Your task to perform on an android device: turn pop-ups off in chrome Image 0: 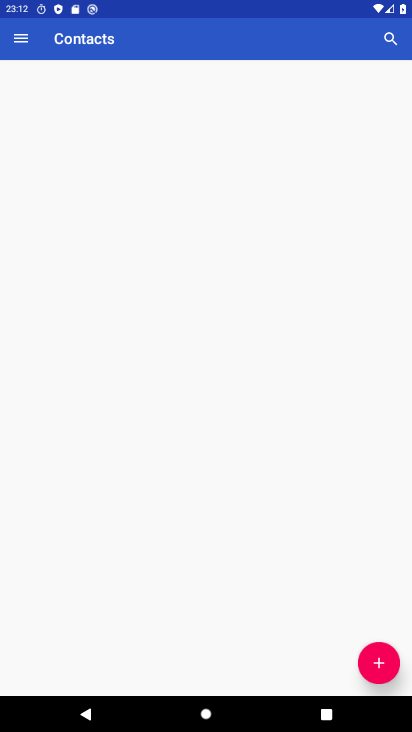
Step 0: drag from (199, 381) to (251, 171)
Your task to perform on an android device: turn pop-ups off in chrome Image 1: 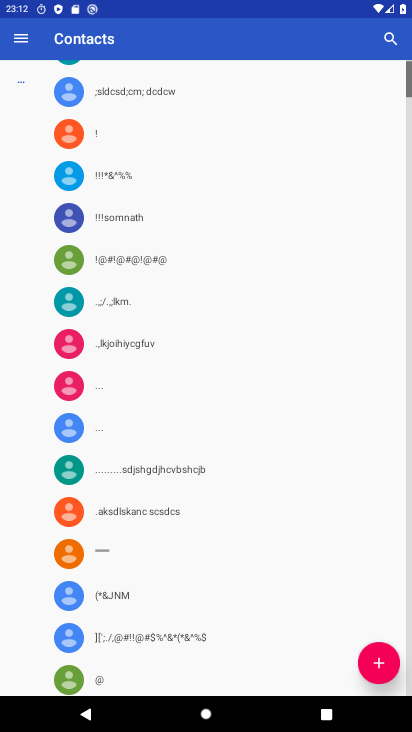
Step 1: press home button
Your task to perform on an android device: turn pop-ups off in chrome Image 2: 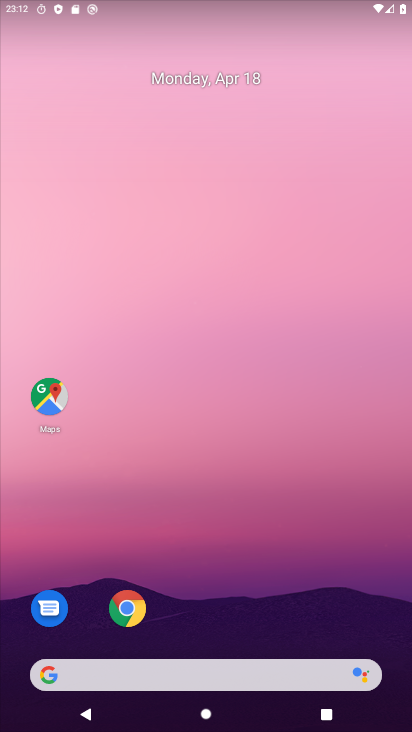
Step 2: click (126, 606)
Your task to perform on an android device: turn pop-ups off in chrome Image 3: 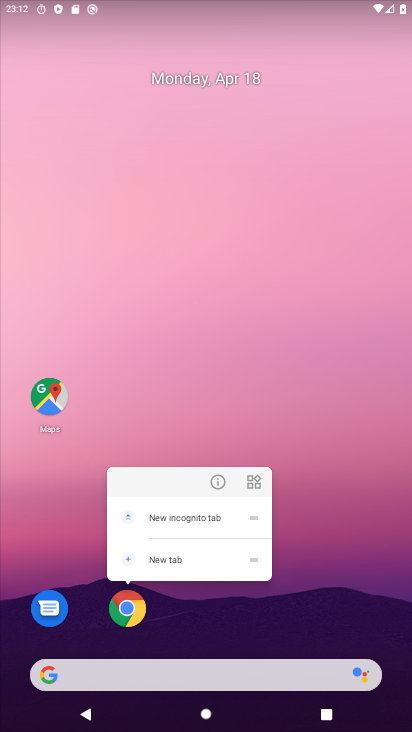
Step 3: click (256, 611)
Your task to perform on an android device: turn pop-ups off in chrome Image 4: 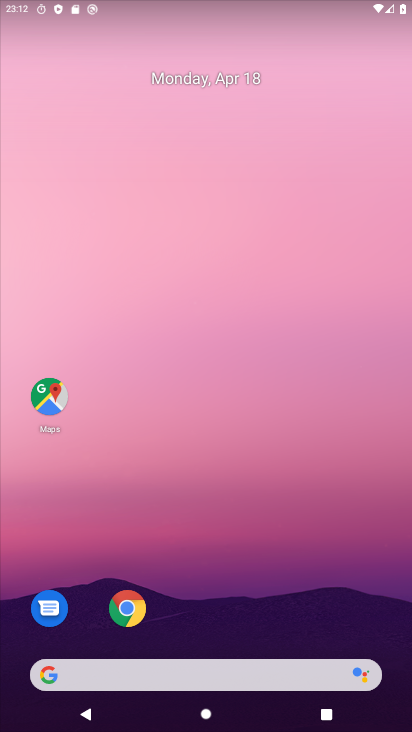
Step 4: click (127, 608)
Your task to perform on an android device: turn pop-ups off in chrome Image 5: 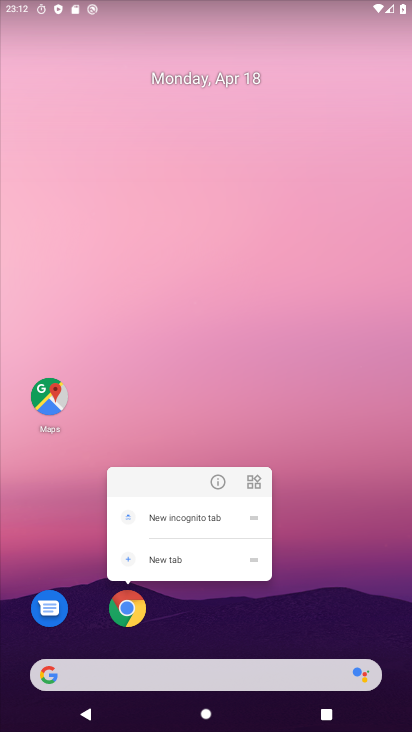
Step 5: click (333, 366)
Your task to perform on an android device: turn pop-ups off in chrome Image 6: 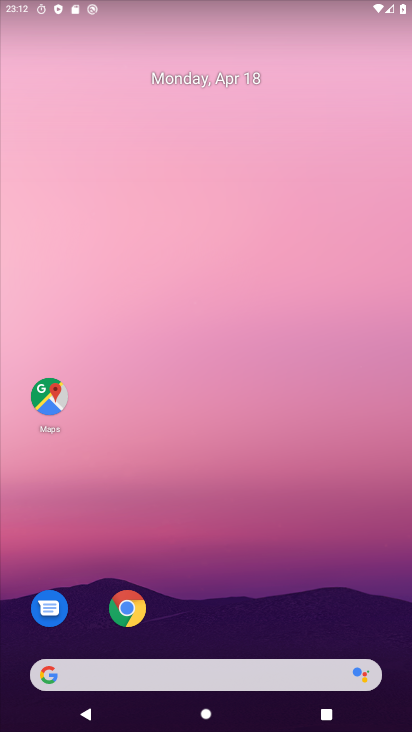
Step 6: click (124, 613)
Your task to perform on an android device: turn pop-ups off in chrome Image 7: 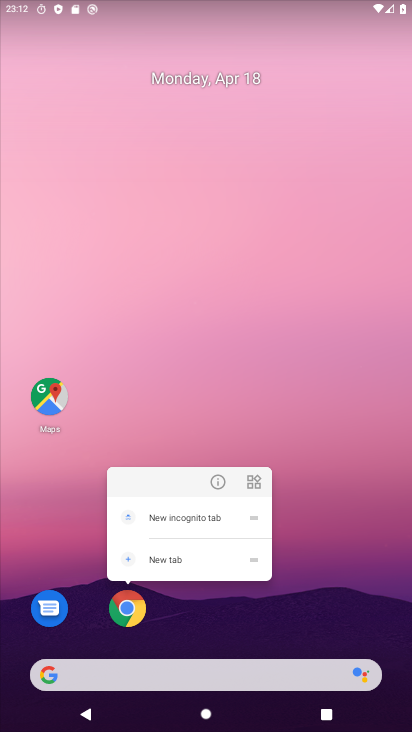
Step 7: click (298, 614)
Your task to perform on an android device: turn pop-ups off in chrome Image 8: 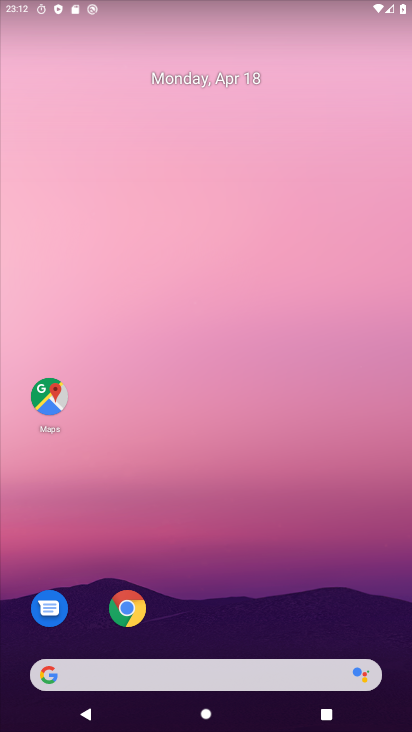
Step 8: click (127, 605)
Your task to perform on an android device: turn pop-ups off in chrome Image 9: 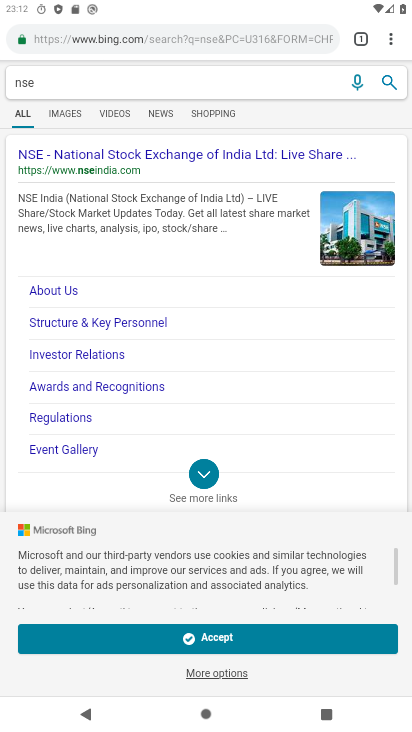
Step 9: click (390, 36)
Your task to perform on an android device: turn pop-ups off in chrome Image 10: 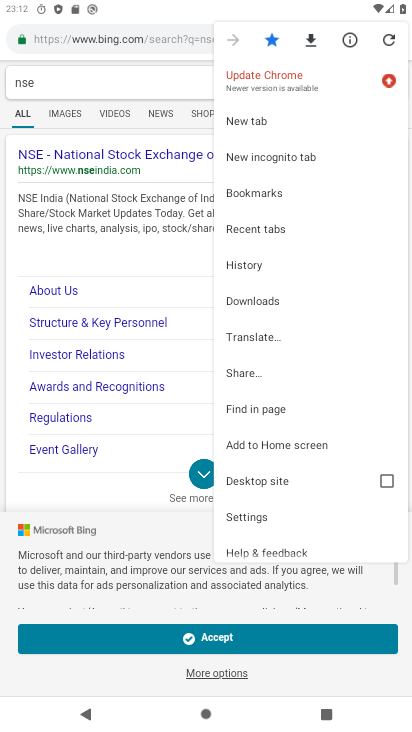
Step 10: click (259, 516)
Your task to perform on an android device: turn pop-ups off in chrome Image 11: 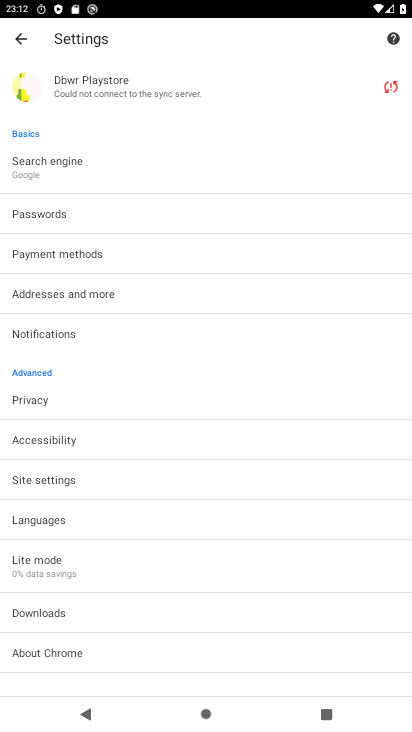
Step 11: click (99, 480)
Your task to perform on an android device: turn pop-ups off in chrome Image 12: 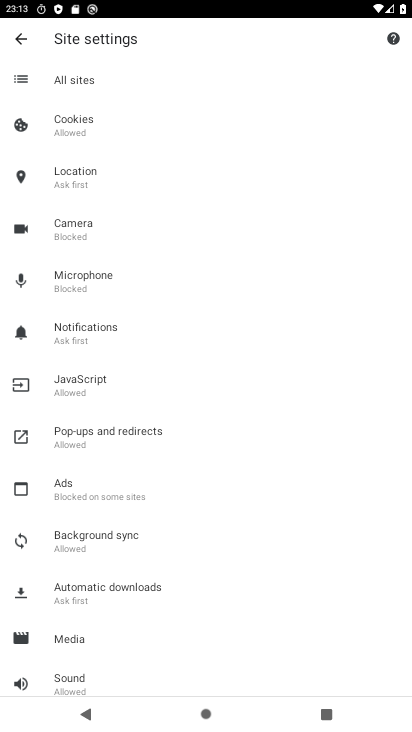
Step 12: click (107, 434)
Your task to perform on an android device: turn pop-ups off in chrome Image 13: 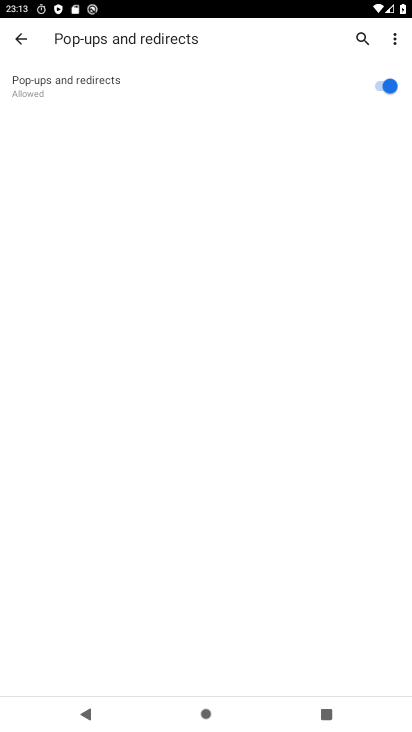
Step 13: click (384, 85)
Your task to perform on an android device: turn pop-ups off in chrome Image 14: 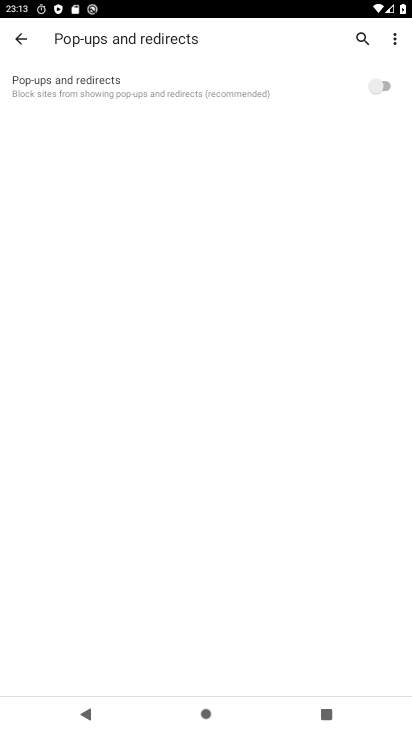
Step 14: task complete